Your task to perform on an android device: Toggle the flashlight Image 0: 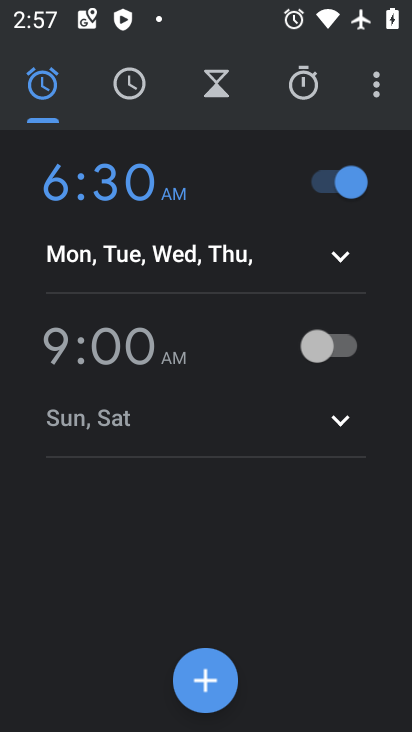
Step 0: press home button
Your task to perform on an android device: Toggle the flashlight Image 1: 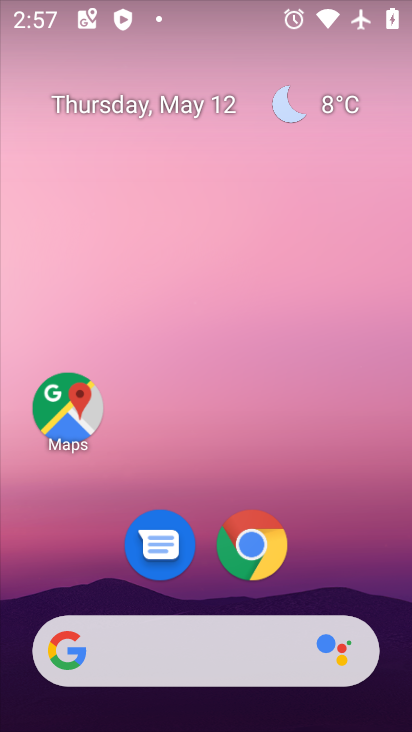
Step 1: drag from (224, 25) to (265, 307)
Your task to perform on an android device: Toggle the flashlight Image 2: 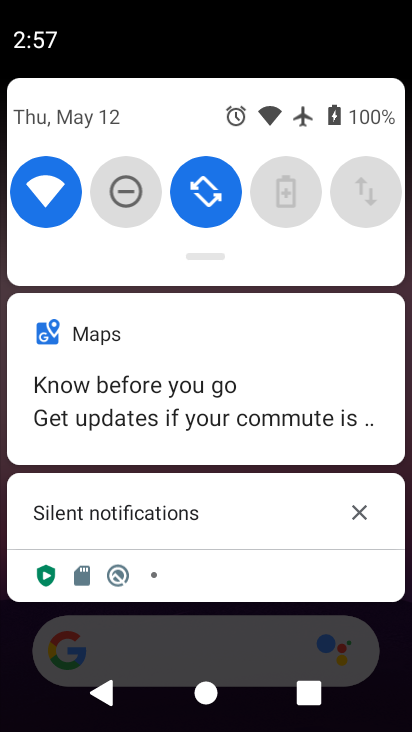
Step 2: drag from (201, 256) to (217, 447)
Your task to perform on an android device: Toggle the flashlight Image 3: 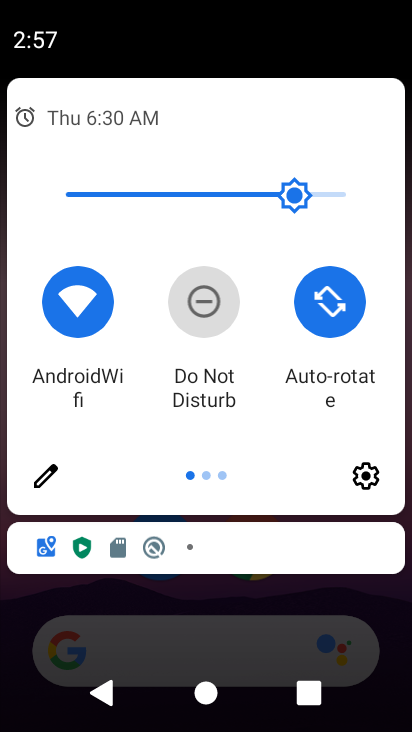
Step 3: click (33, 475)
Your task to perform on an android device: Toggle the flashlight Image 4: 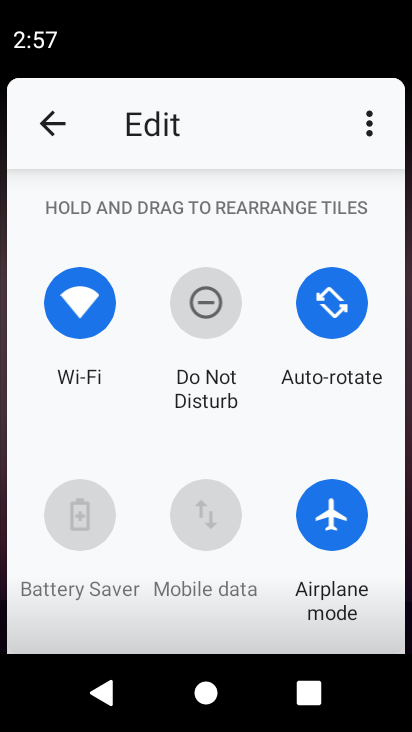
Step 4: task complete